Your task to perform on an android device: Check the news Image 0: 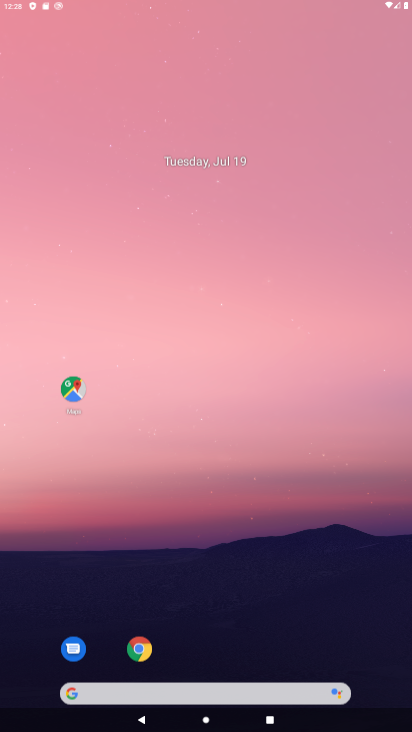
Step 0: click (270, 176)
Your task to perform on an android device: Check the news Image 1: 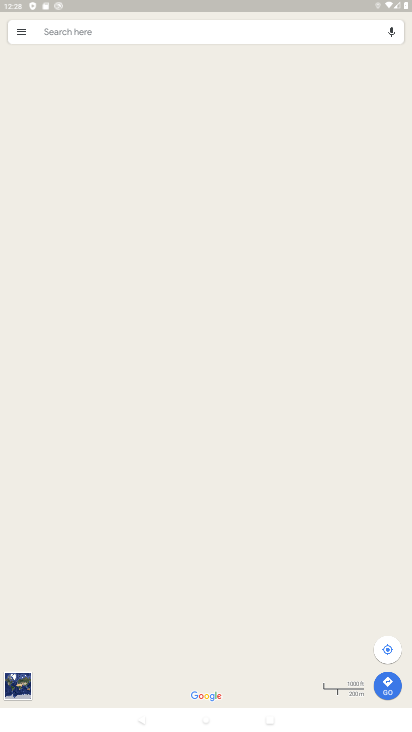
Step 1: task complete